Your task to perform on an android device: Go to ESPN.com Image 0: 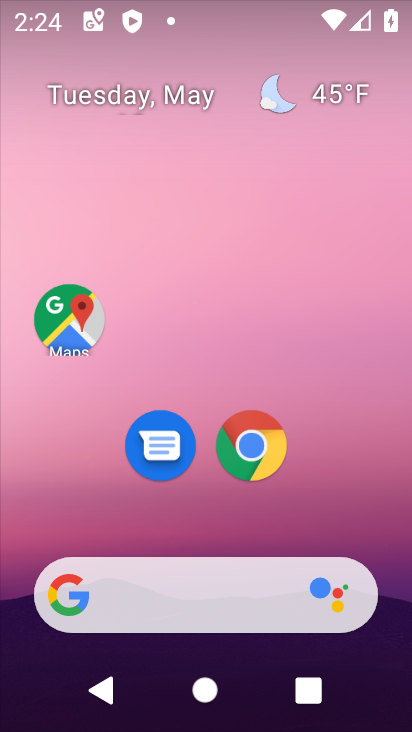
Step 0: click (249, 446)
Your task to perform on an android device: Go to ESPN.com Image 1: 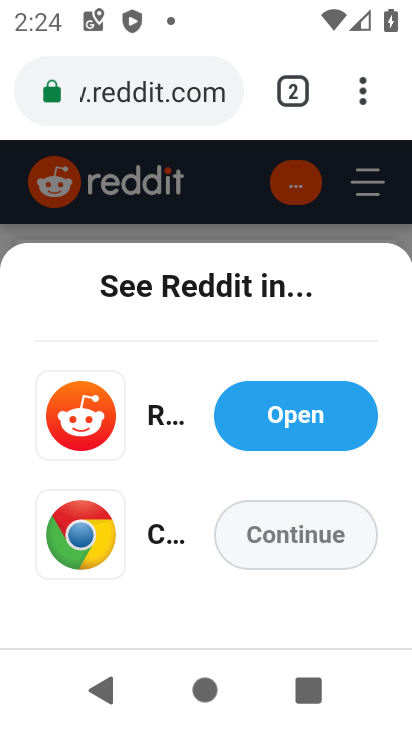
Step 1: click (294, 82)
Your task to perform on an android device: Go to ESPN.com Image 2: 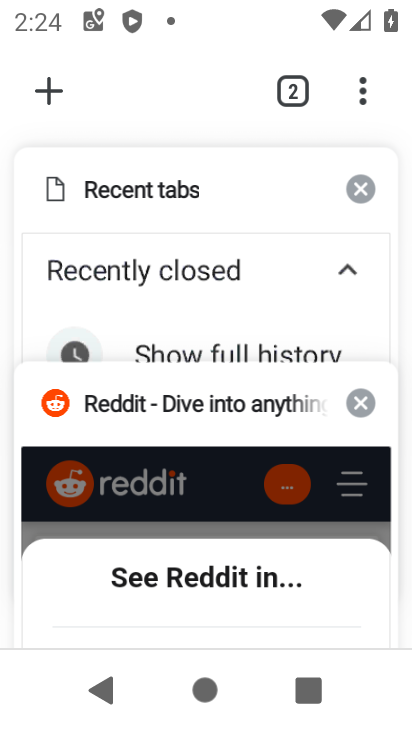
Step 2: click (60, 80)
Your task to perform on an android device: Go to ESPN.com Image 3: 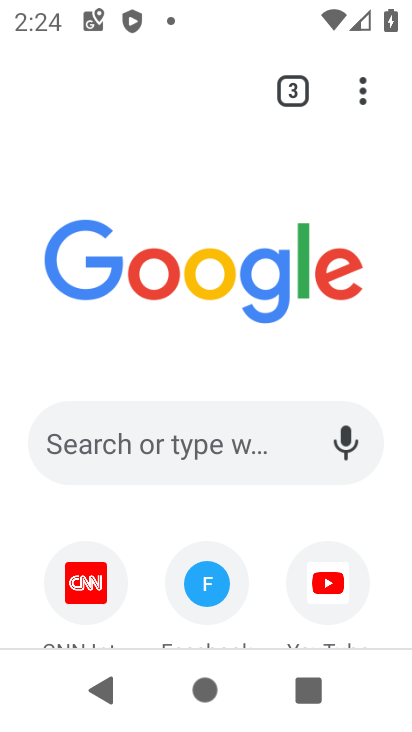
Step 3: drag from (165, 559) to (276, 163)
Your task to perform on an android device: Go to ESPN.com Image 4: 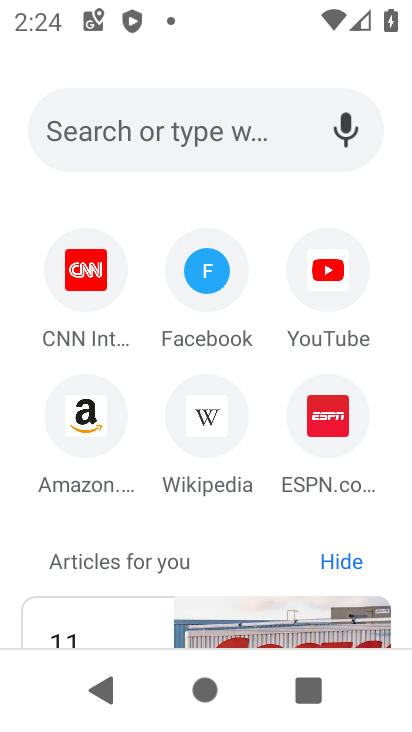
Step 4: click (344, 425)
Your task to perform on an android device: Go to ESPN.com Image 5: 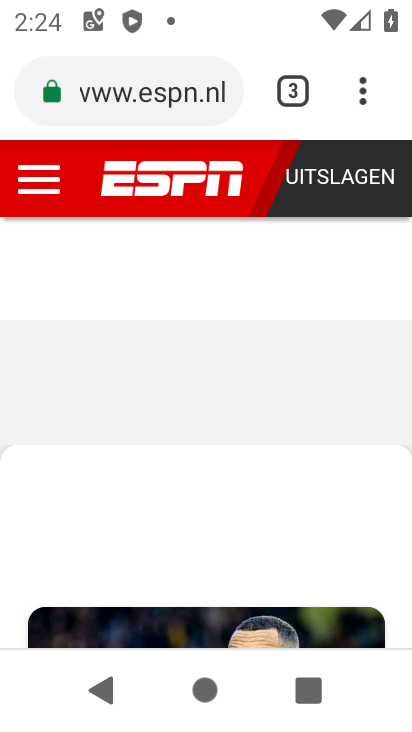
Step 5: task complete